Your task to perform on an android device: turn on showing notifications on the lock screen Image 0: 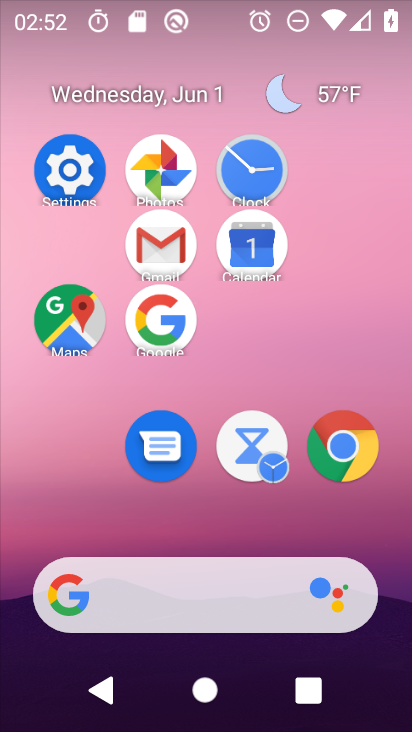
Step 0: press home button
Your task to perform on an android device: turn on showing notifications on the lock screen Image 1: 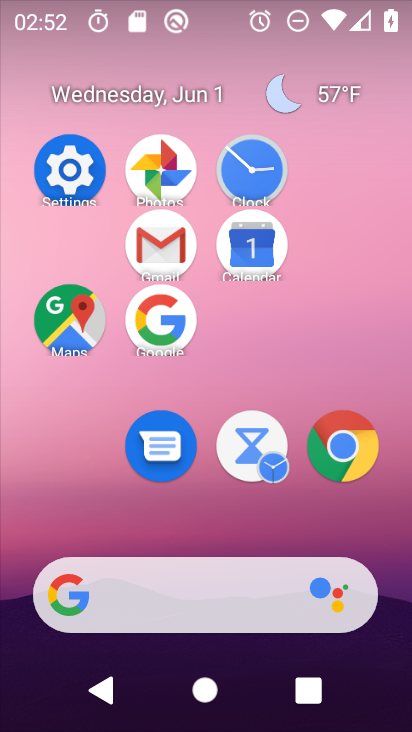
Step 1: click (100, 155)
Your task to perform on an android device: turn on showing notifications on the lock screen Image 2: 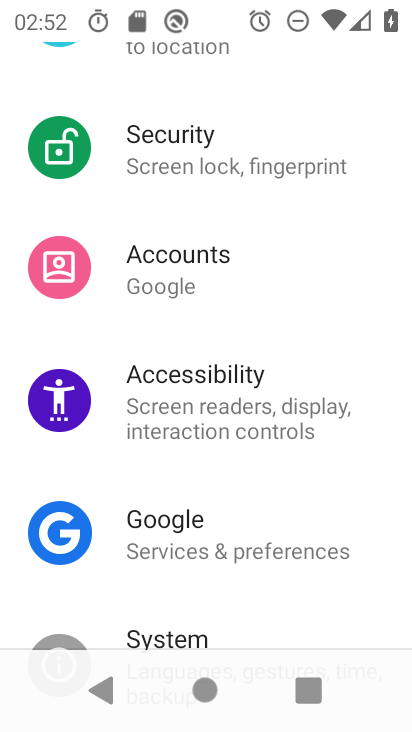
Step 2: drag from (304, 180) to (317, 566)
Your task to perform on an android device: turn on showing notifications on the lock screen Image 3: 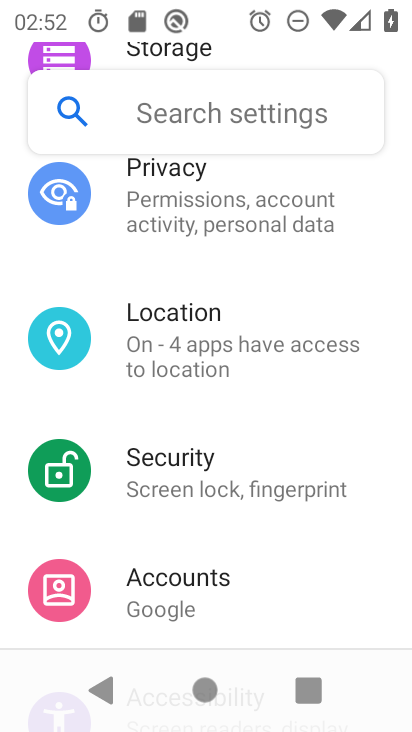
Step 3: drag from (265, 223) to (276, 625)
Your task to perform on an android device: turn on showing notifications on the lock screen Image 4: 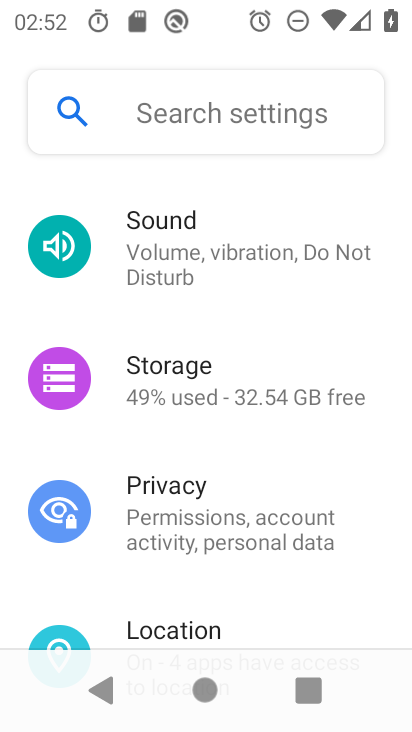
Step 4: drag from (283, 275) to (318, 643)
Your task to perform on an android device: turn on showing notifications on the lock screen Image 5: 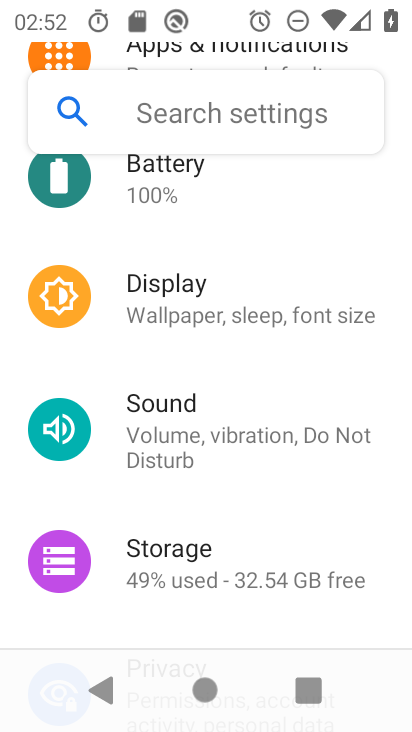
Step 5: drag from (262, 225) to (268, 643)
Your task to perform on an android device: turn on showing notifications on the lock screen Image 6: 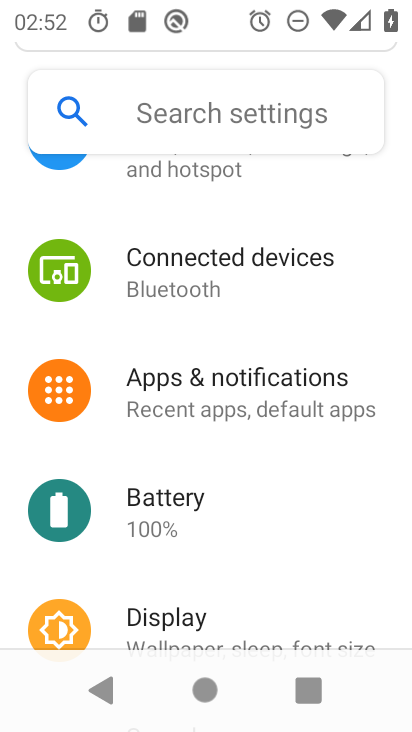
Step 6: click (235, 408)
Your task to perform on an android device: turn on showing notifications on the lock screen Image 7: 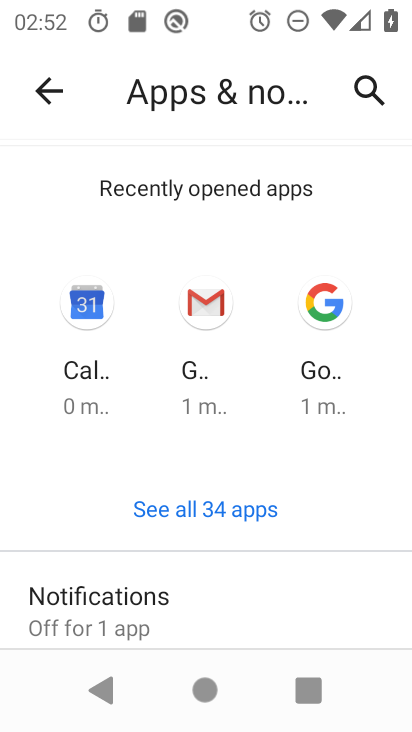
Step 7: click (276, 629)
Your task to perform on an android device: turn on showing notifications on the lock screen Image 8: 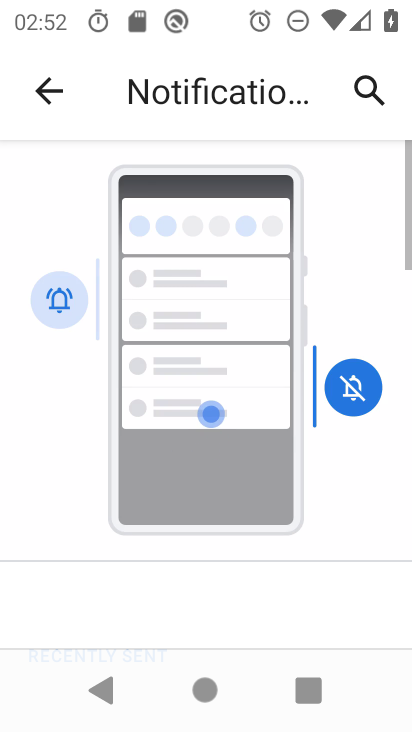
Step 8: drag from (258, 565) to (302, 226)
Your task to perform on an android device: turn on showing notifications on the lock screen Image 9: 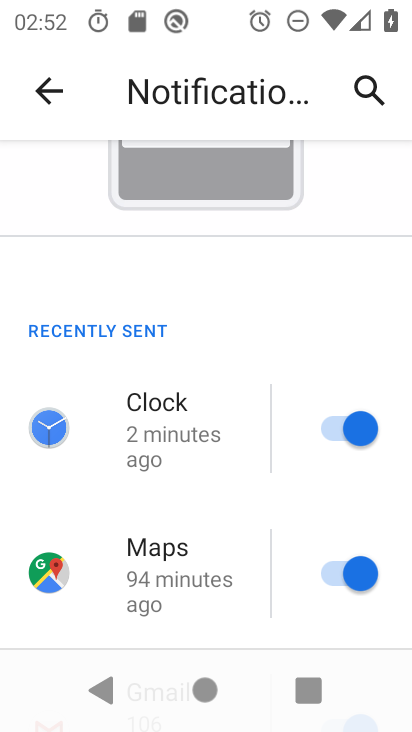
Step 9: drag from (229, 510) to (258, 68)
Your task to perform on an android device: turn on showing notifications on the lock screen Image 10: 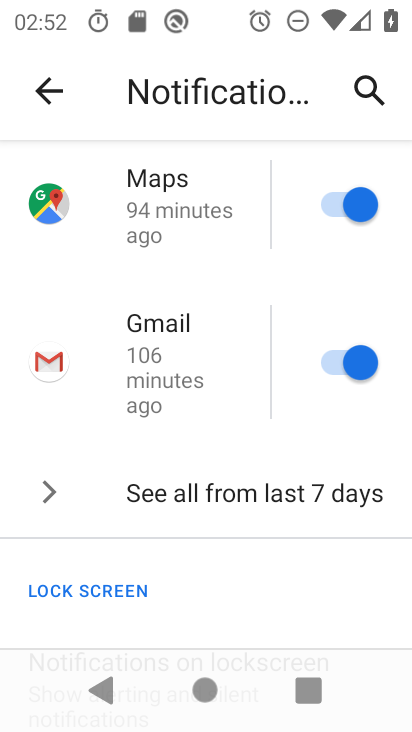
Step 10: drag from (228, 532) to (252, 64)
Your task to perform on an android device: turn on showing notifications on the lock screen Image 11: 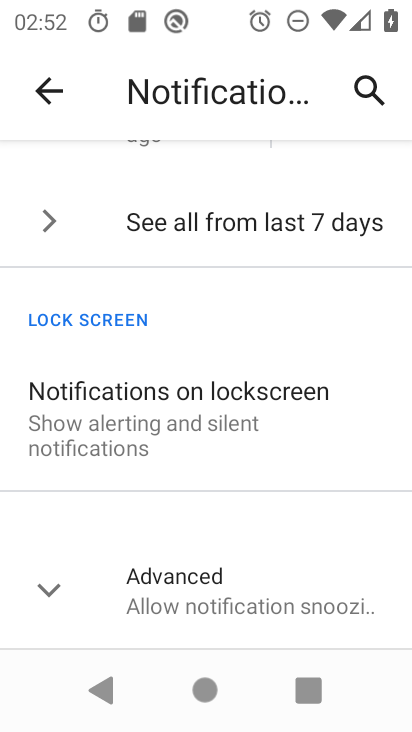
Step 11: click (230, 440)
Your task to perform on an android device: turn on showing notifications on the lock screen Image 12: 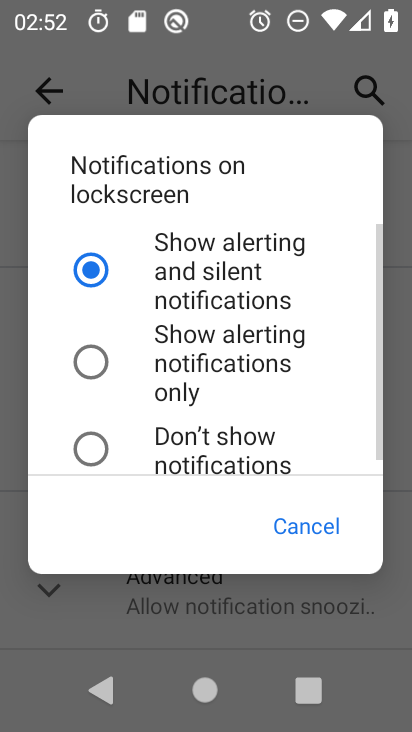
Step 12: task complete